Your task to perform on an android device: Open the calendar and show me this week's events? Image 0: 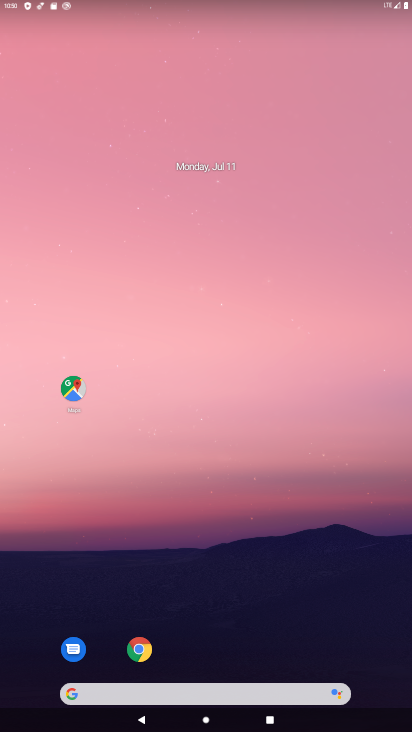
Step 0: drag from (323, 610) to (206, 60)
Your task to perform on an android device: Open the calendar and show me this week's events? Image 1: 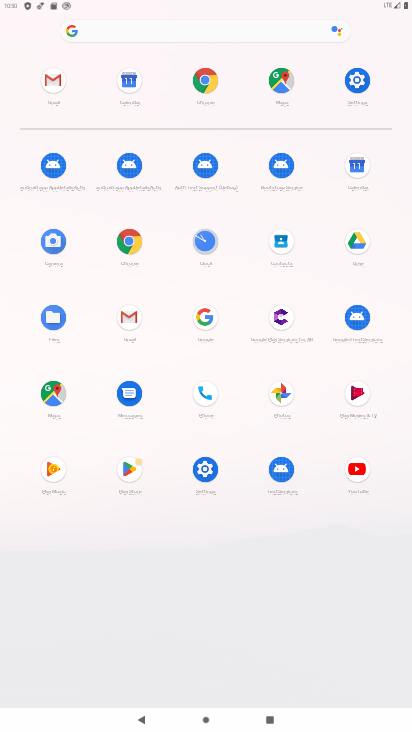
Step 1: click (357, 166)
Your task to perform on an android device: Open the calendar and show me this week's events? Image 2: 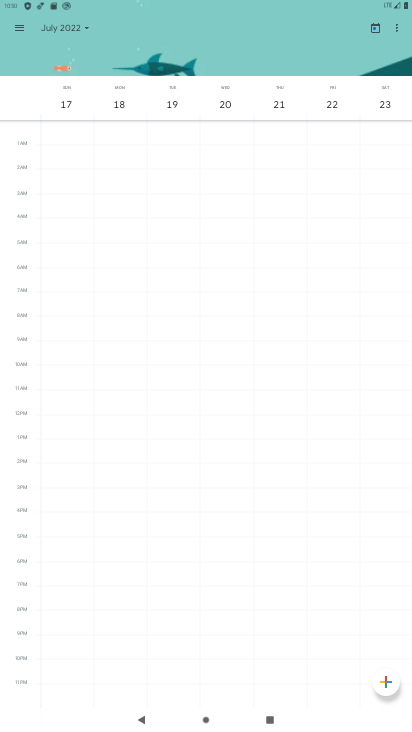
Step 2: click (60, 27)
Your task to perform on an android device: Open the calendar and show me this week's events? Image 3: 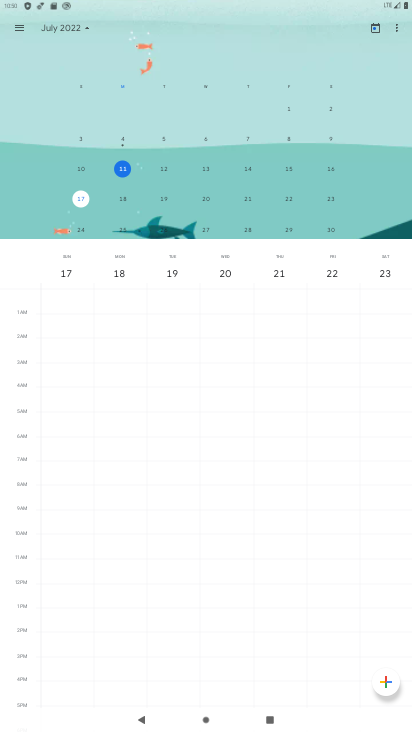
Step 3: click (129, 171)
Your task to perform on an android device: Open the calendar and show me this week's events? Image 4: 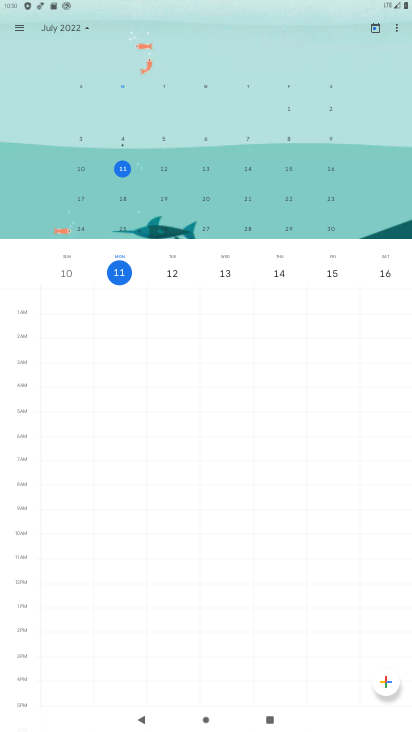
Step 4: task complete